Your task to perform on an android device: Open Yahoo.com Image 0: 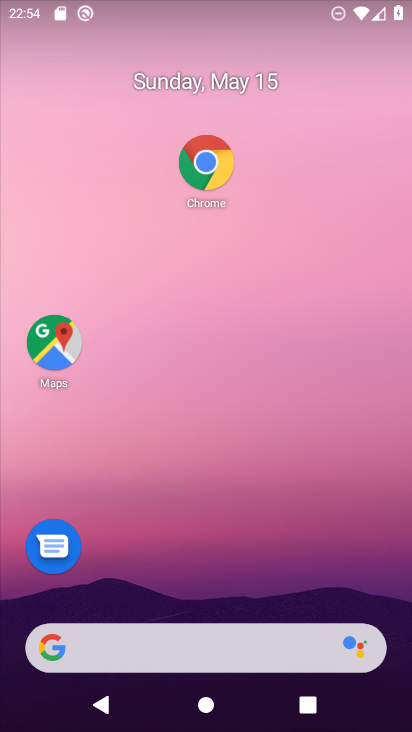
Step 0: click (199, 146)
Your task to perform on an android device: Open Yahoo.com Image 1: 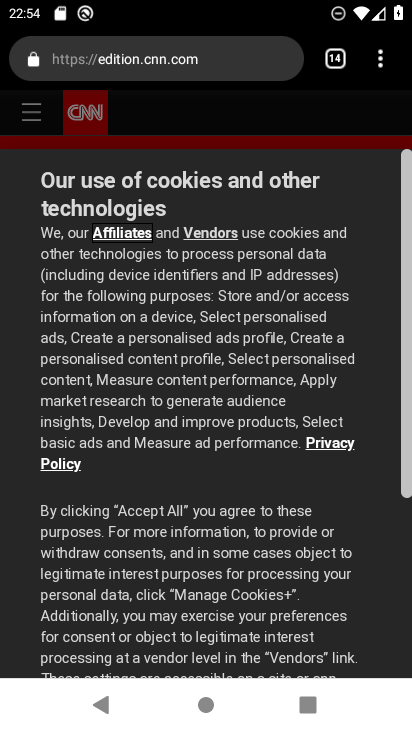
Step 1: click (372, 54)
Your task to perform on an android device: Open Yahoo.com Image 2: 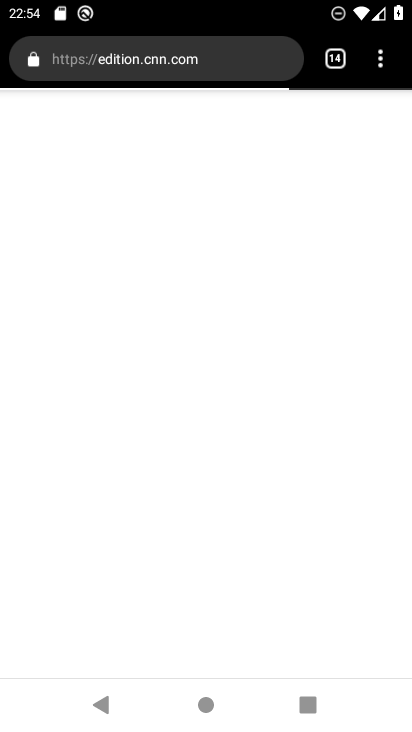
Step 2: click (367, 57)
Your task to perform on an android device: Open Yahoo.com Image 3: 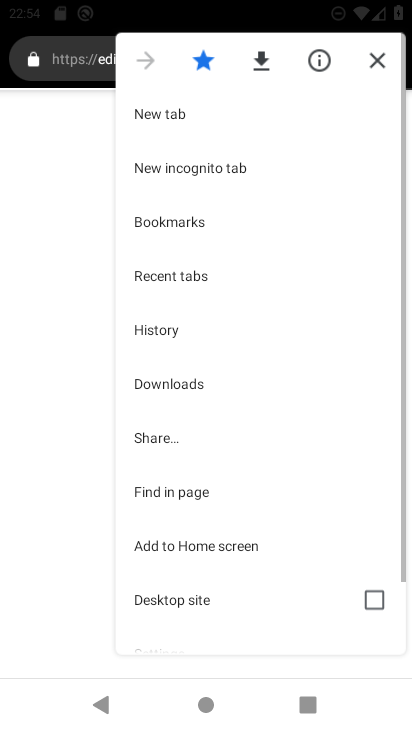
Step 3: click (195, 109)
Your task to perform on an android device: Open Yahoo.com Image 4: 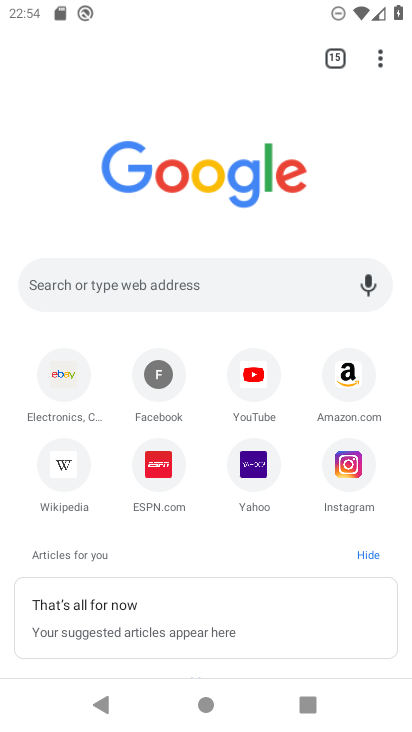
Step 4: click (250, 462)
Your task to perform on an android device: Open Yahoo.com Image 5: 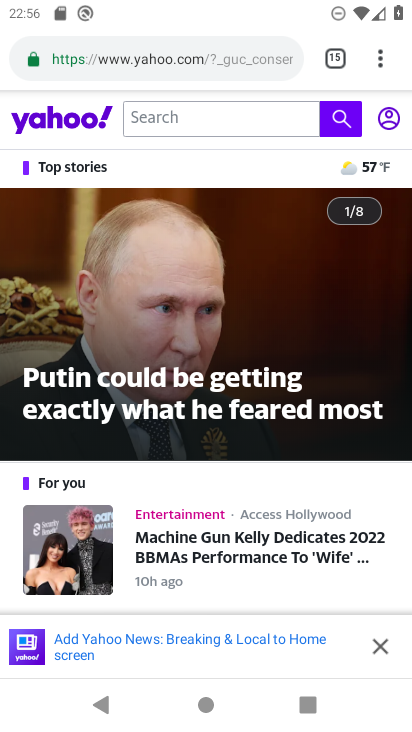
Step 5: task complete